Your task to perform on an android device: How much does a 3 bedroom apartment rent for in Boston? Image 0: 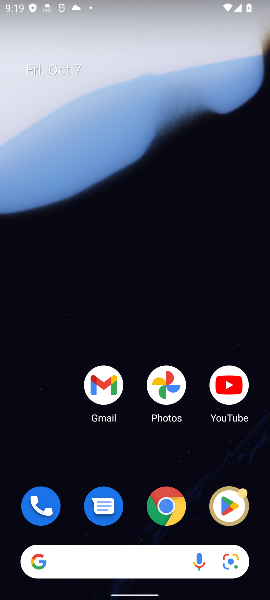
Step 0: click (162, 493)
Your task to perform on an android device: How much does a 3 bedroom apartment rent for in Boston? Image 1: 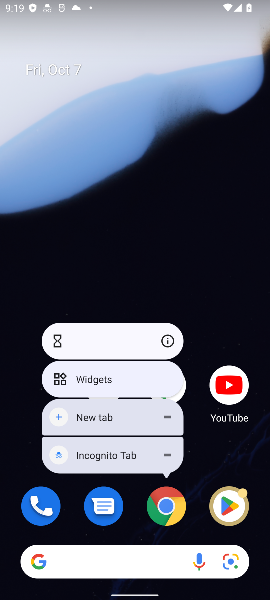
Step 1: click (163, 500)
Your task to perform on an android device: How much does a 3 bedroom apartment rent for in Boston? Image 2: 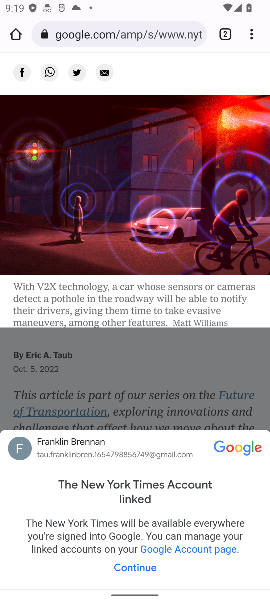
Step 2: click (126, 35)
Your task to perform on an android device: How much does a 3 bedroom apartment rent for in Boston? Image 3: 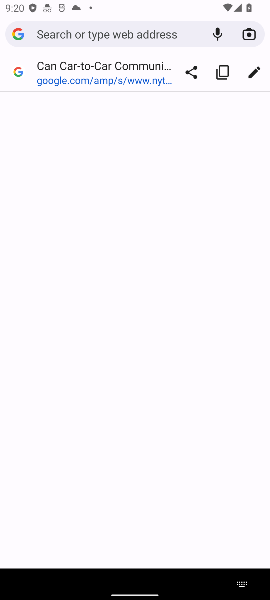
Step 3: type "3 bedroom apartment rent for in Boston"
Your task to perform on an android device: How much does a 3 bedroom apartment rent for in Boston? Image 4: 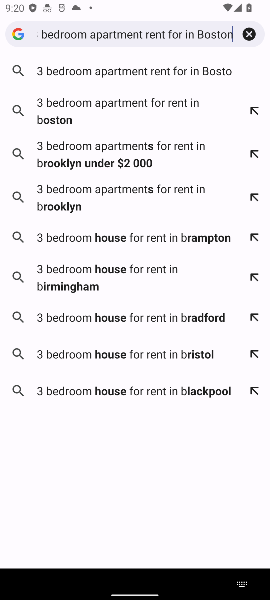
Step 4: press enter
Your task to perform on an android device: How much does a 3 bedroom apartment rent for in Boston? Image 5: 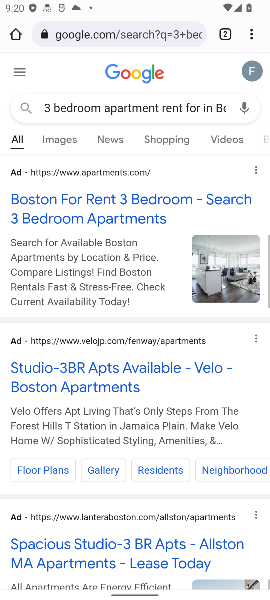
Step 5: click (79, 196)
Your task to perform on an android device: How much does a 3 bedroom apartment rent for in Boston? Image 6: 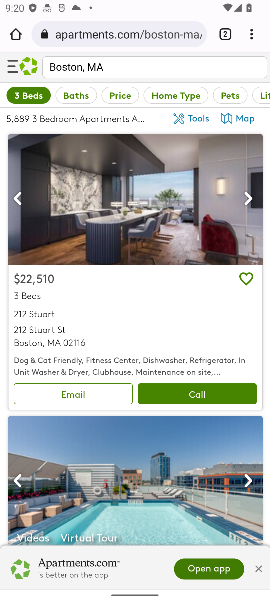
Step 6: task complete